Your task to perform on an android device: open device folders in google photos Image 0: 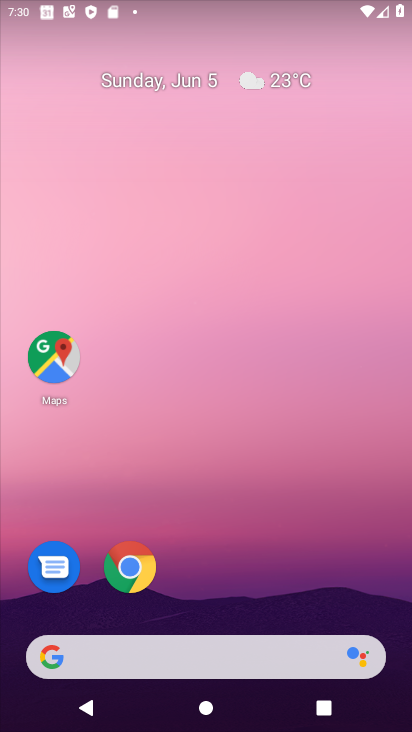
Step 0: click (389, 620)
Your task to perform on an android device: open device folders in google photos Image 1: 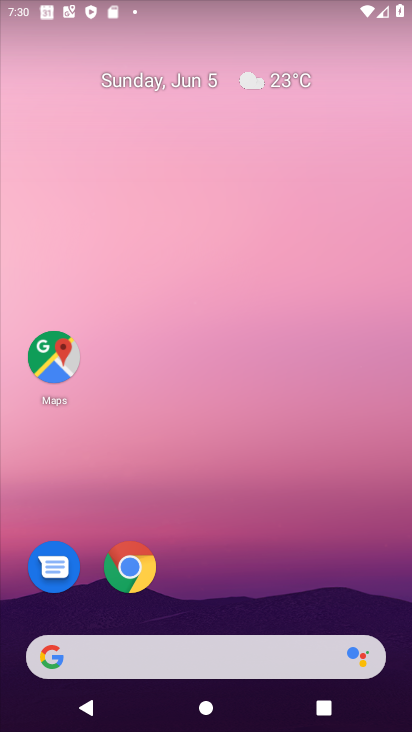
Step 1: drag from (355, 391) to (260, 45)
Your task to perform on an android device: open device folders in google photos Image 2: 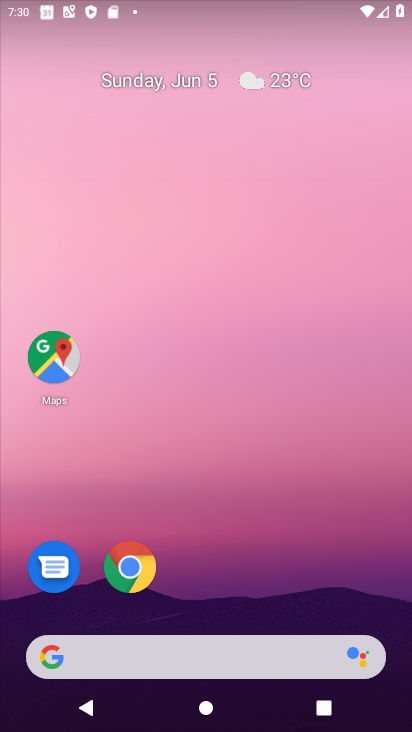
Step 2: drag from (389, 504) to (246, 5)
Your task to perform on an android device: open device folders in google photos Image 3: 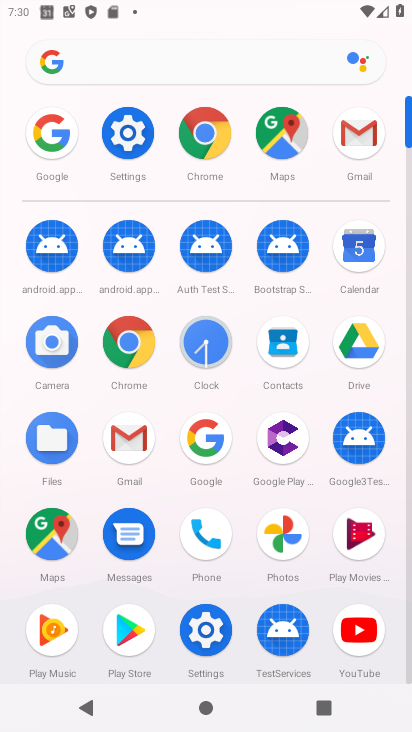
Step 3: click (286, 548)
Your task to perform on an android device: open device folders in google photos Image 4: 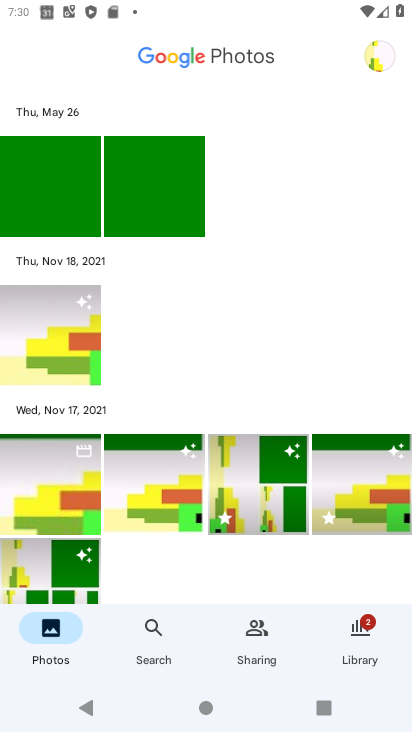
Step 4: task complete